Your task to perform on an android device: Go to internet settings Image 0: 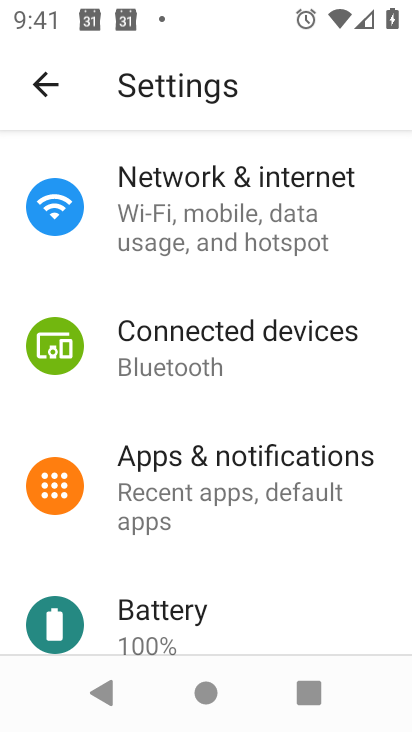
Step 0: click (389, 476)
Your task to perform on an android device: Go to internet settings Image 1: 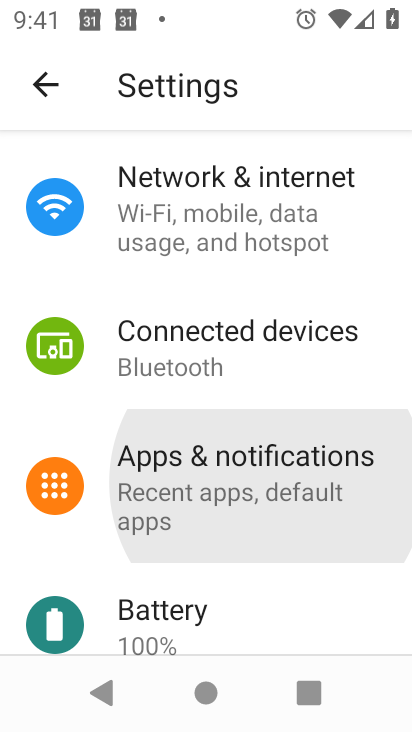
Step 1: click (221, 221)
Your task to perform on an android device: Go to internet settings Image 2: 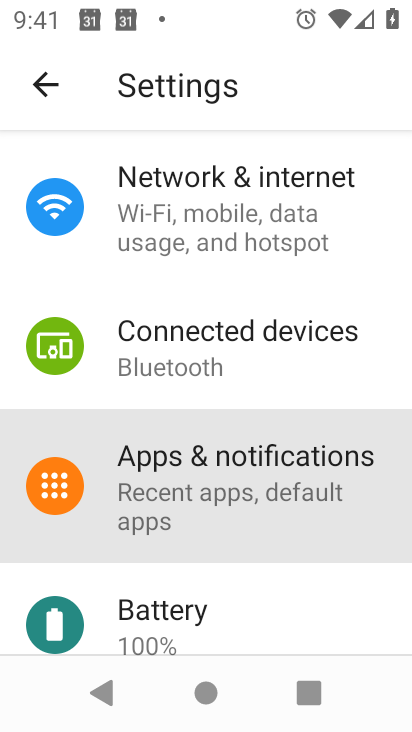
Step 2: click (222, 220)
Your task to perform on an android device: Go to internet settings Image 3: 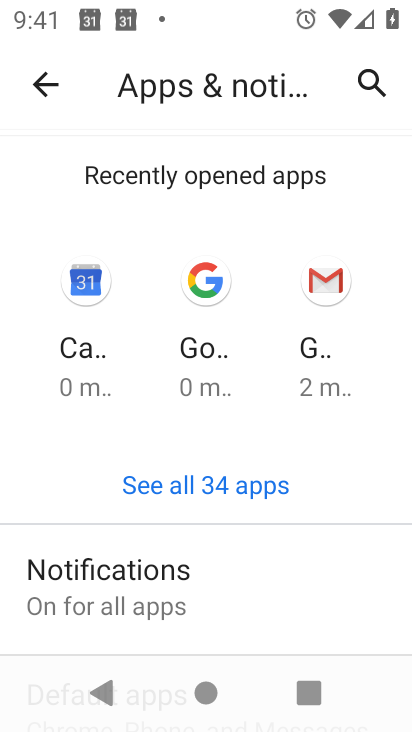
Step 3: drag from (200, 570) to (197, 239)
Your task to perform on an android device: Go to internet settings Image 4: 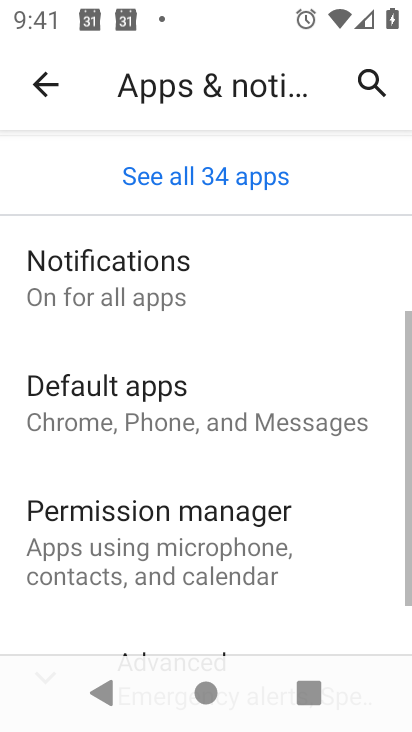
Step 4: drag from (248, 460) to (215, 251)
Your task to perform on an android device: Go to internet settings Image 5: 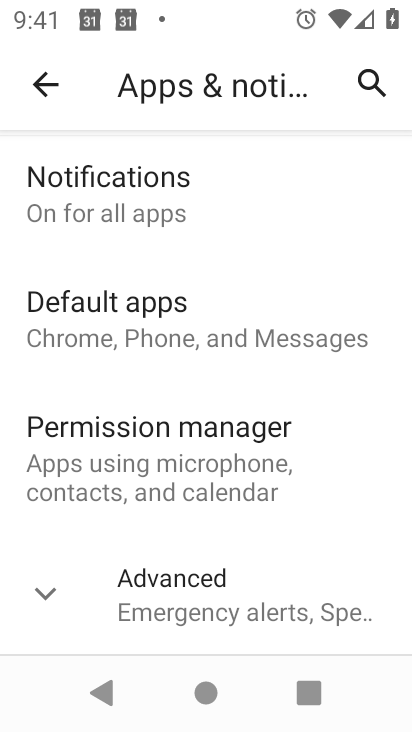
Step 5: click (41, 89)
Your task to perform on an android device: Go to internet settings Image 6: 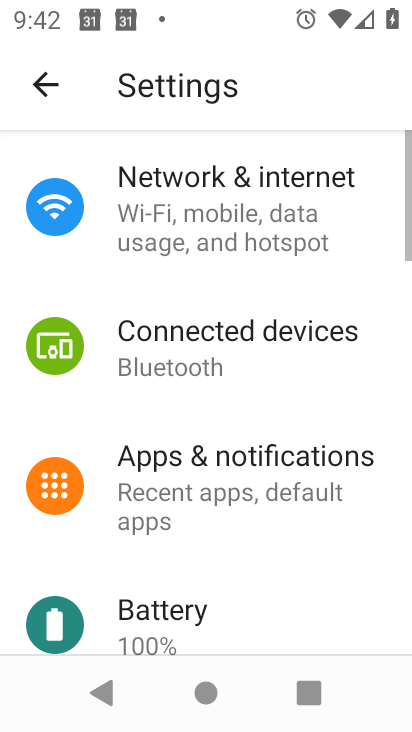
Step 6: click (268, 211)
Your task to perform on an android device: Go to internet settings Image 7: 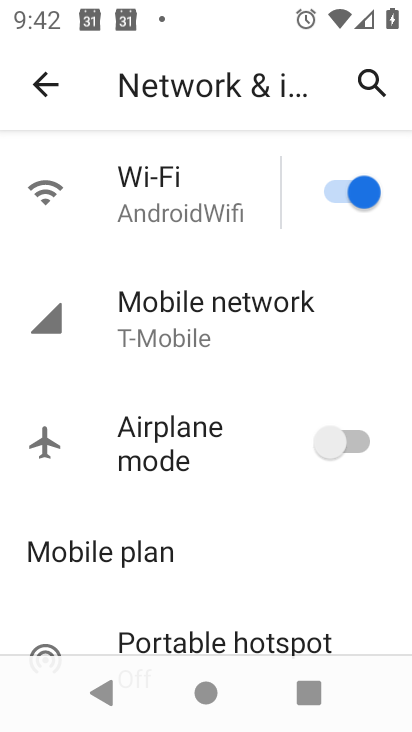
Step 7: task complete